Your task to perform on an android device: Open Yahoo.com Image 0: 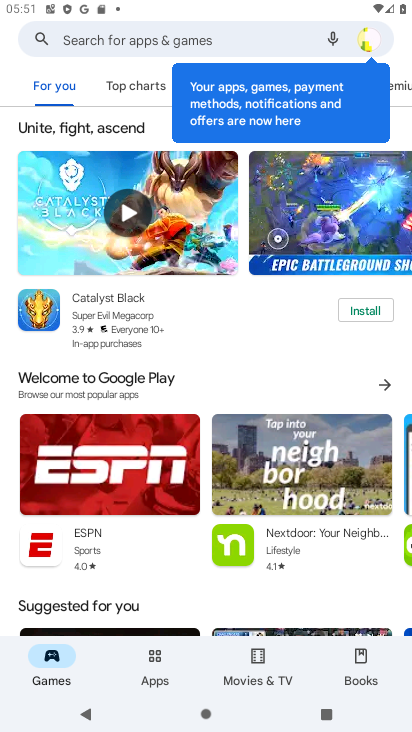
Step 0: press home button
Your task to perform on an android device: Open Yahoo.com Image 1: 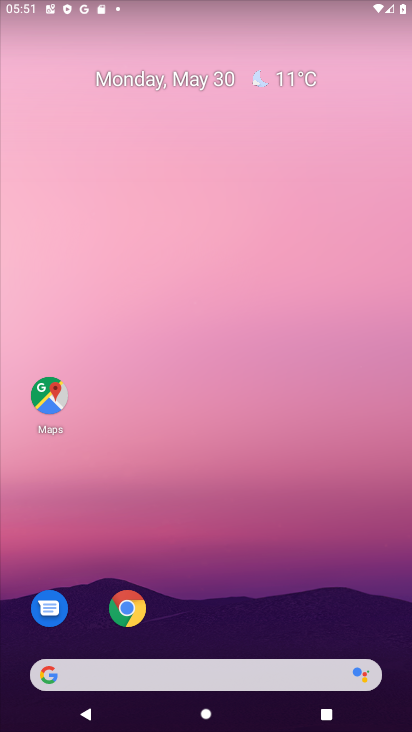
Step 1: click (129, 616)
Your task to perform on an android device: Open Yahoo.com Image 2: 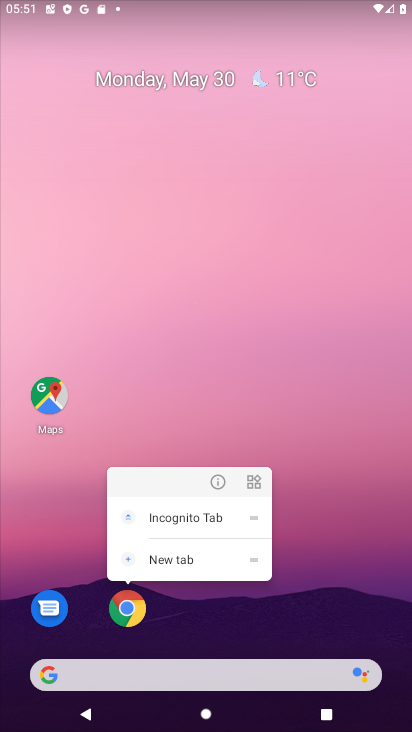
Step 2: click (129, 616)
Your task to perform on an android device: Open Yahoo.com Image 3: 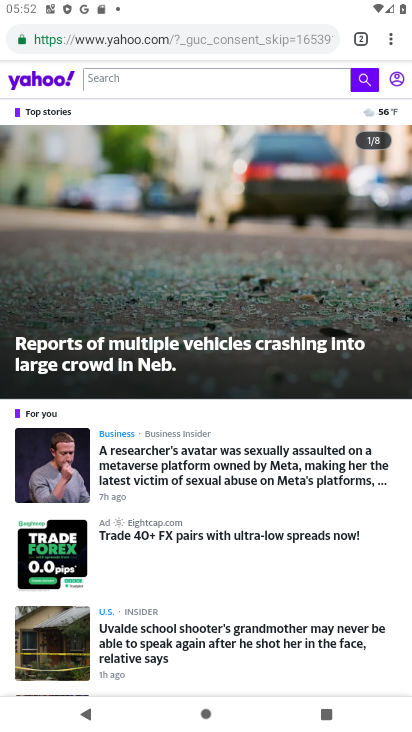
Step 3: task complete